Your task to perform on an android device: turn pop-ups on in chrome Image 0: 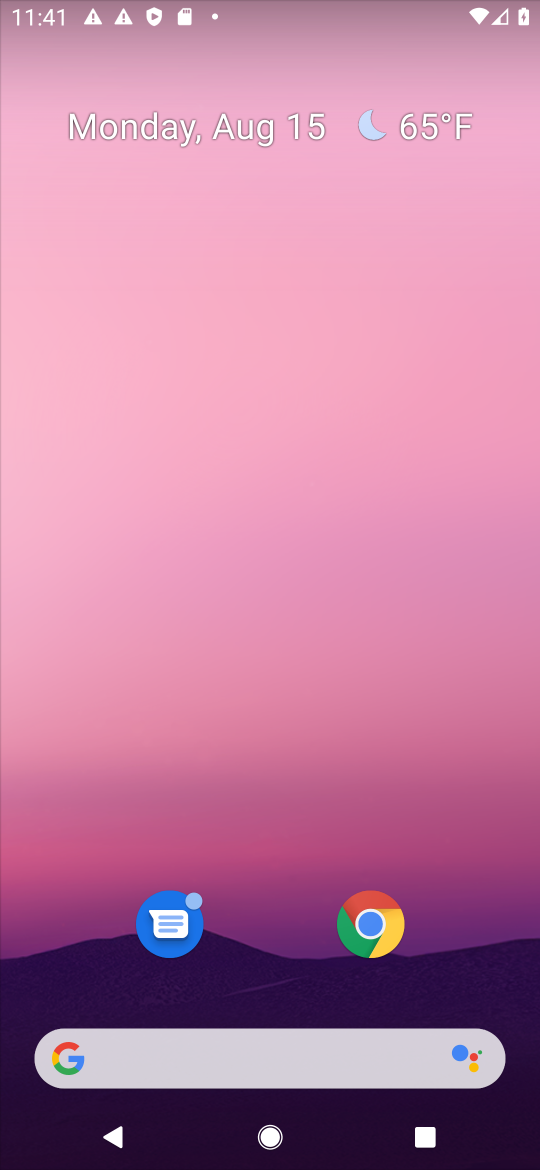
Step 0: click (391, 929)
Your task to perform on an android device: turn pop-ups on in chrome Image 1: 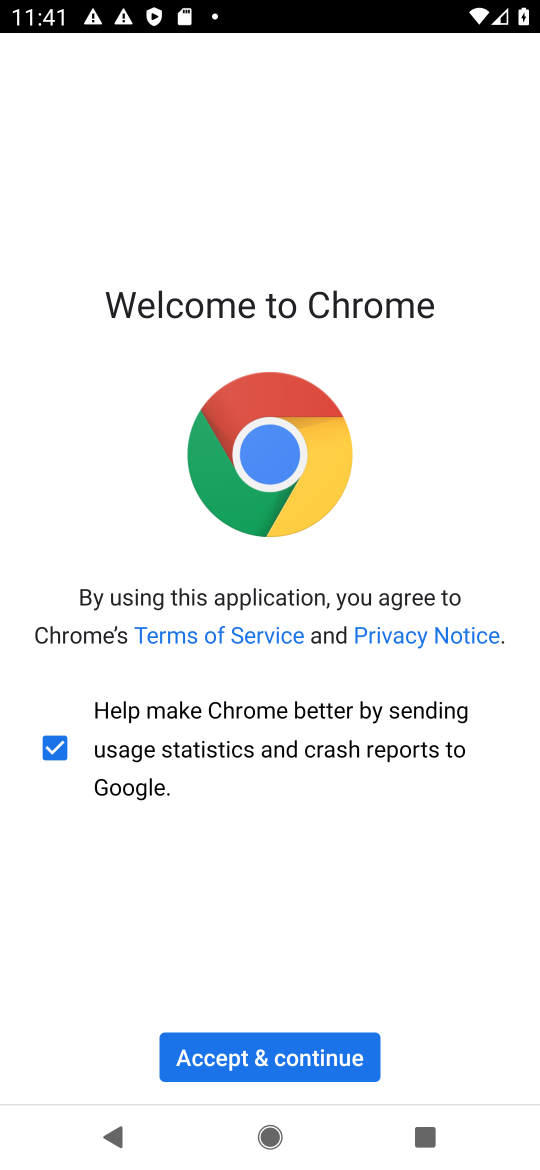
Step 1: click (270, 1044)
Your task to perform on an android device: turn pop-ups on in chrome Image 2: 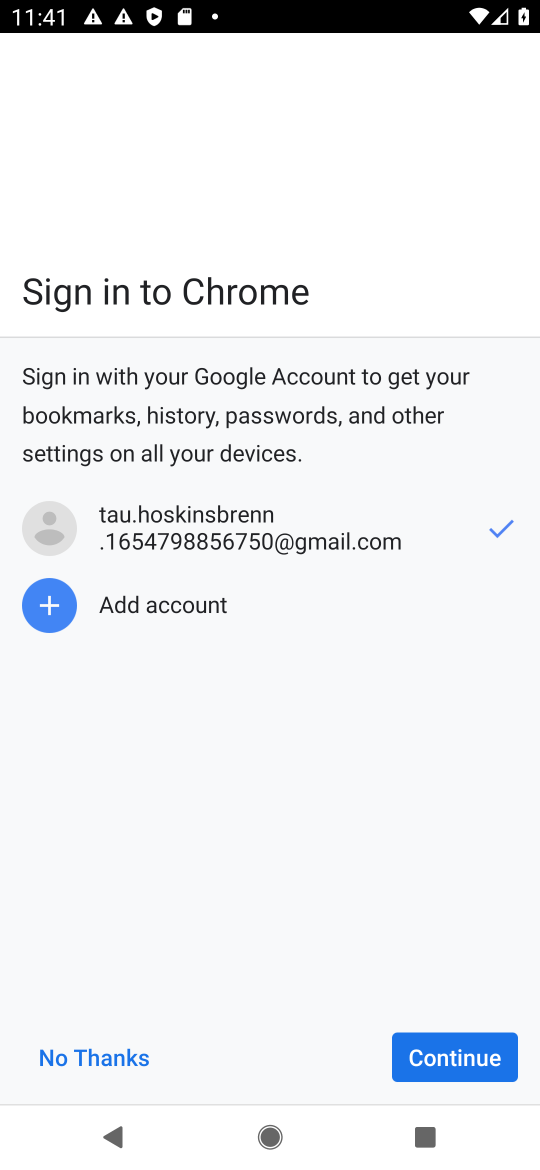
Step 2: click (422, 1059)
Your task to perform on an android device: turn pop-ups on in chrome Image 3: 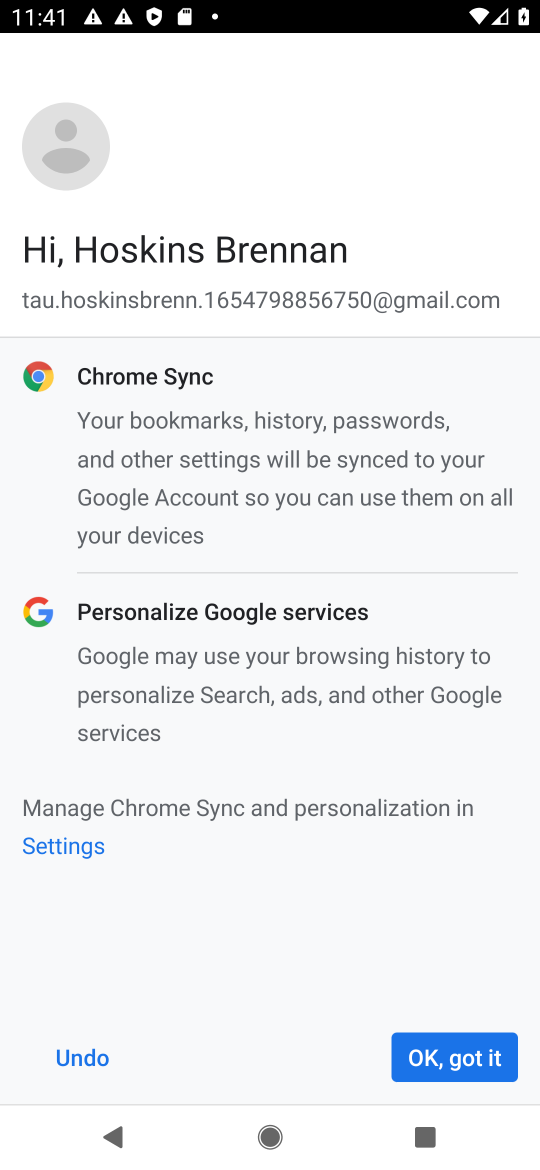
Step 3: click (422, 1059)
Your task to perform on an android device: turn pop-ups on in chrome Image 4: 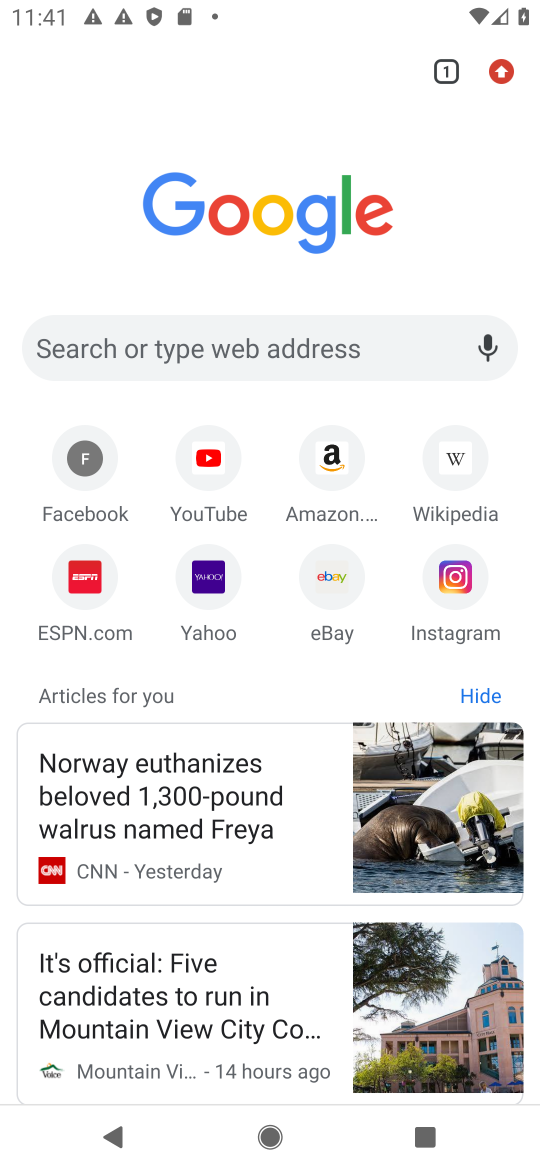
Step 4: click (504, 73)
Your task to perform on an android device: turn pop-ups on in chrome Image 5: 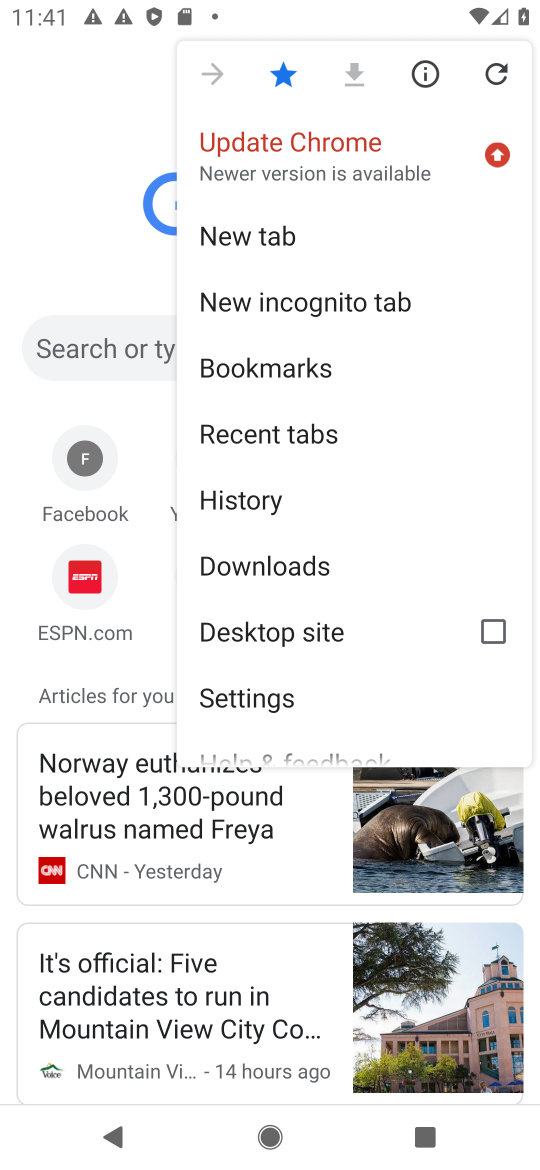
Step 5: click (311, 706)
Your task to perform on an android device: turn pop-ups on in chrome Image 6: 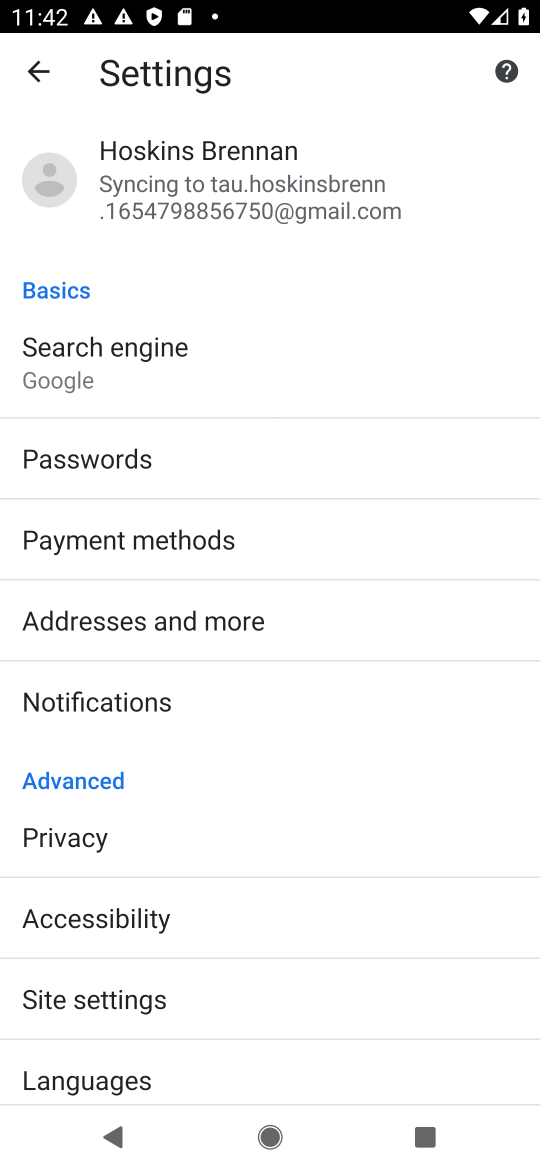
Step 6: click (208, 981)
Your task to perform on an android device: turn pop-ups on in chrome Image 7: 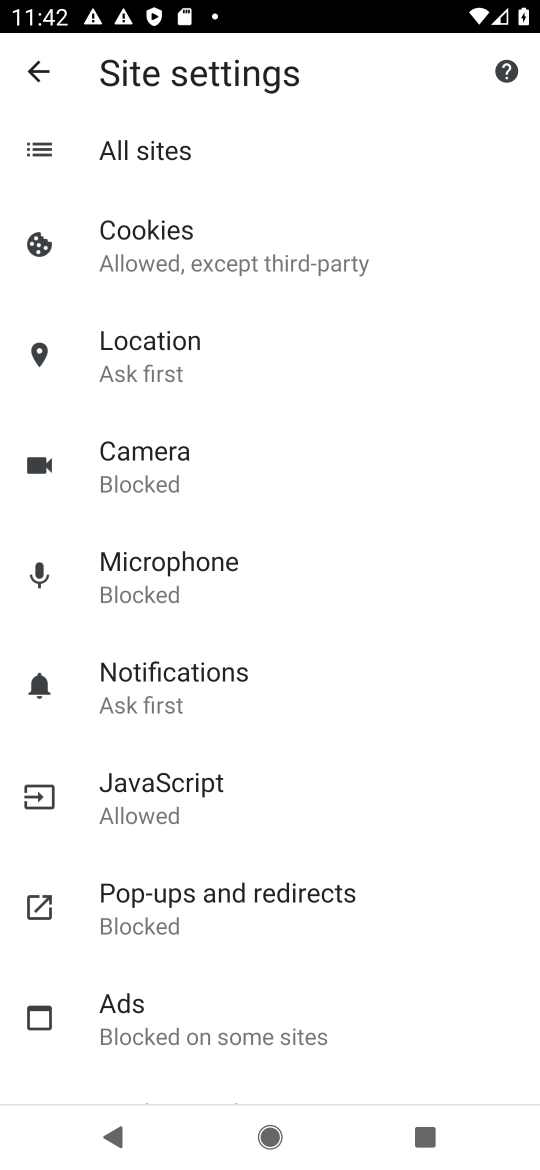
Step 7: click (191, 894)
Your task to perform on an android device: turn pop-ups on in chrome Image 8: 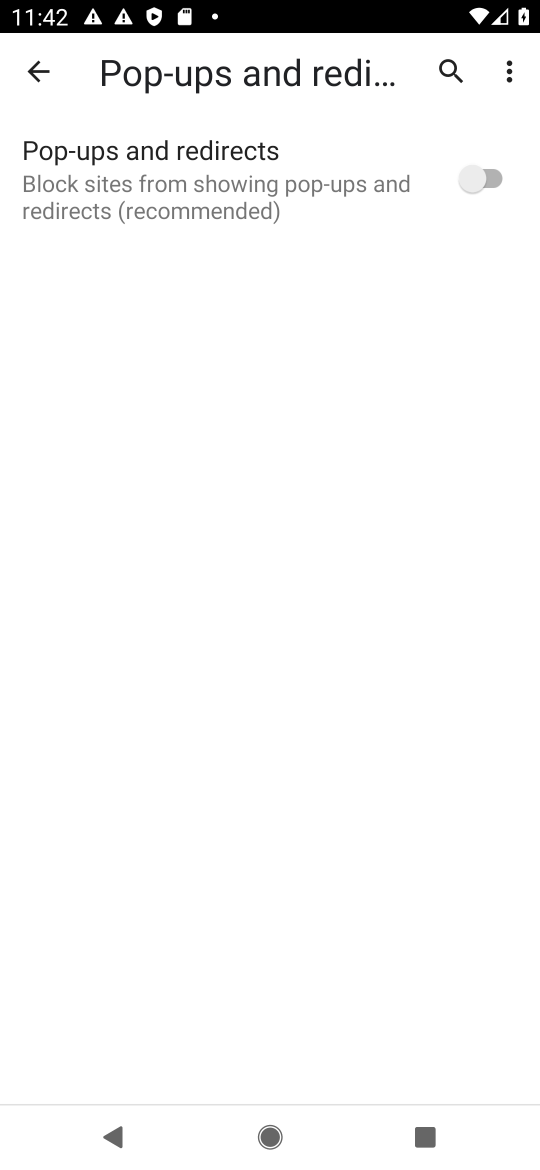
Step 8: click (470, 177)
Your task to perform on an android device: turn pop-ups on in chrome Image 9: 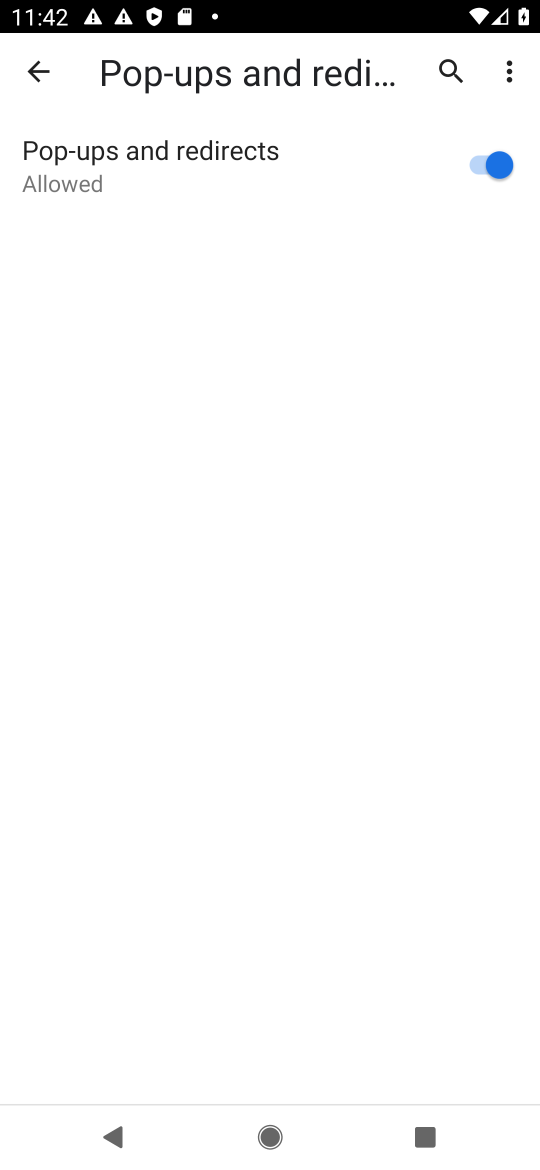
Step 9: task complete